Your task to perform on an android device: change the clock display to analog Image 0: 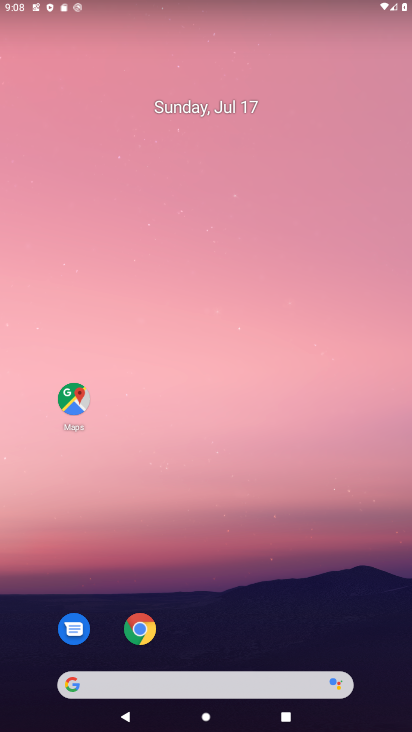
Step 0: drag from (220, 540) to (326, 35)
Your task to perform on an android device: change the clock display to analog Image 1: 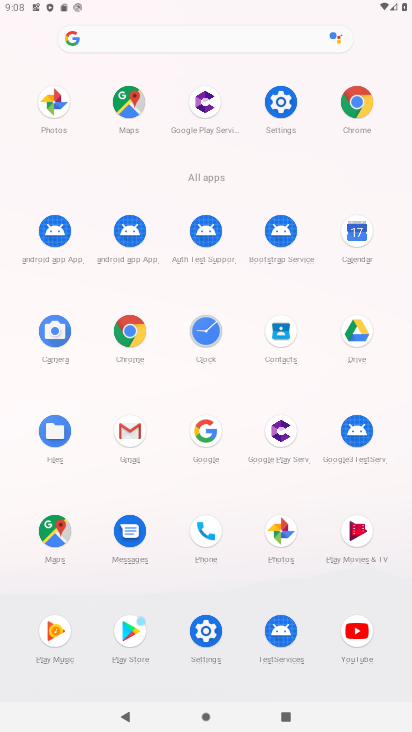
Step 1: click (210, 346)
Your task to perform on an android device: change the clock display to analog Image 2: 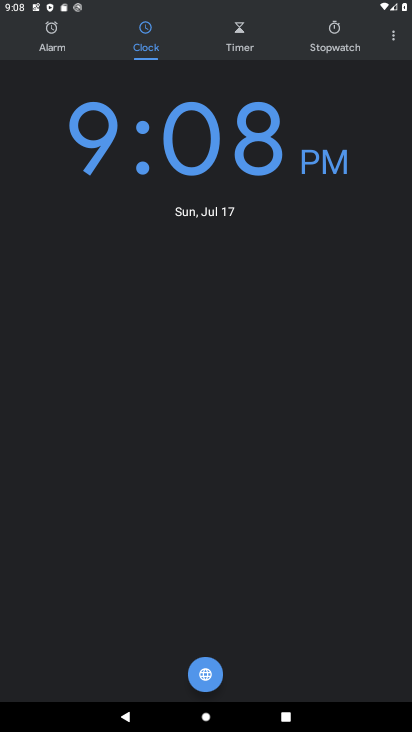
Step 2: click (396, 33)
Your task to perform on an android device: change the clock display to analog Image 3: 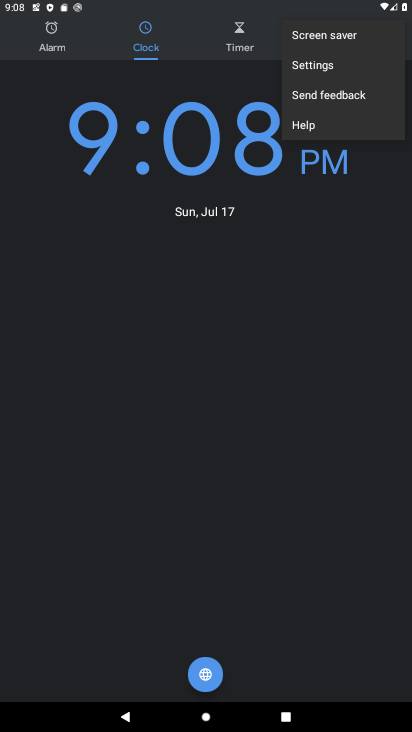
Step 3: click (320, 69)
Your task to perform on an android device: change the clock display to analog Image 4: 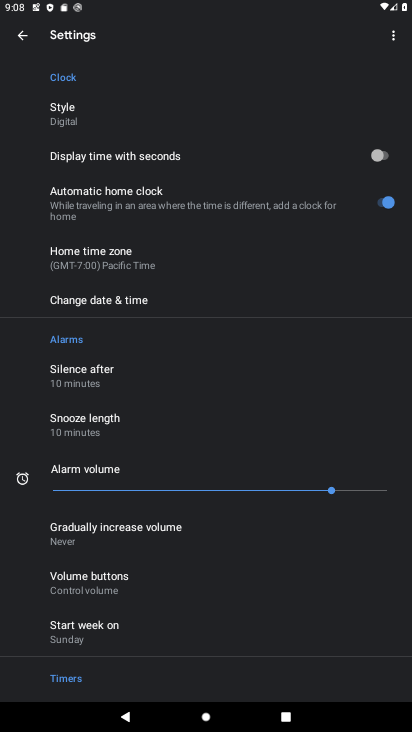
Step 4: click (100, 123)
Your task to perform on an android device: change the clock display to analog Image 5: 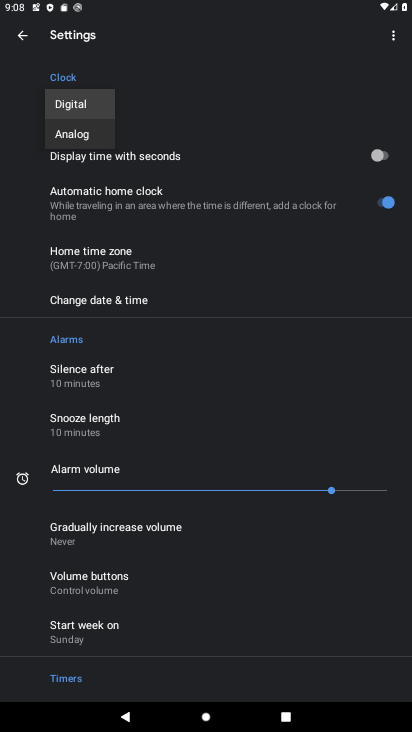
Step 5: click (82, 138)
Your task to perform on an android device: change the clock display to analog Image 6: 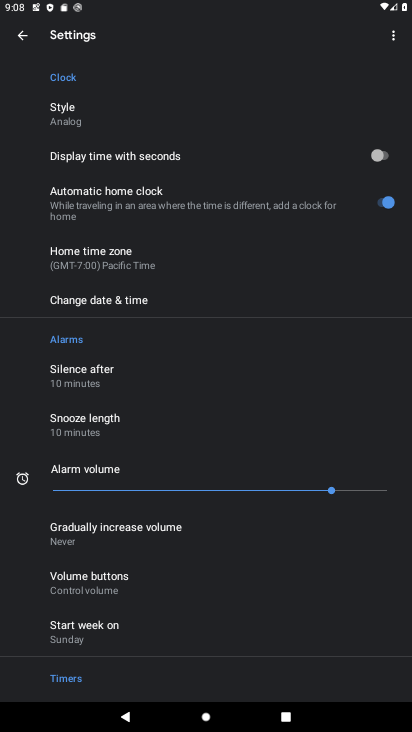
Step 6: task complete